Your task to perform on an android device: Open Google Image 0: 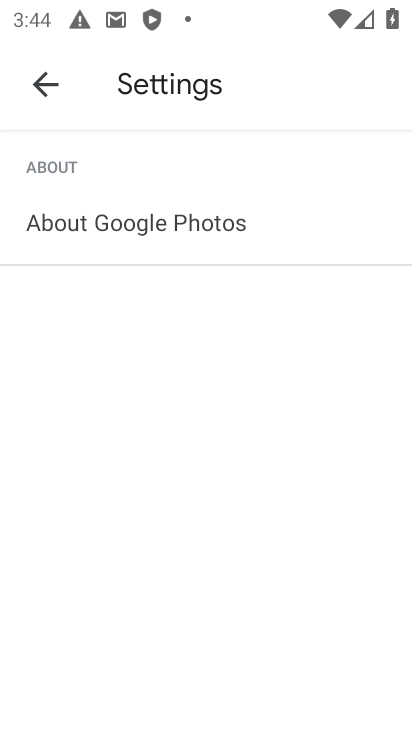
Step 0: press home button
Your task to perform on an android device: Open Google Image 1: 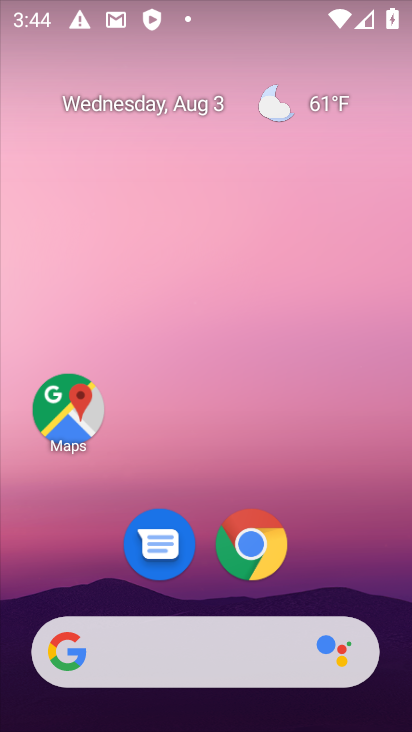
Step 1: drag from (332, 571) to (325, 55)
Your task to perform on an android device: Open Google Image 2: 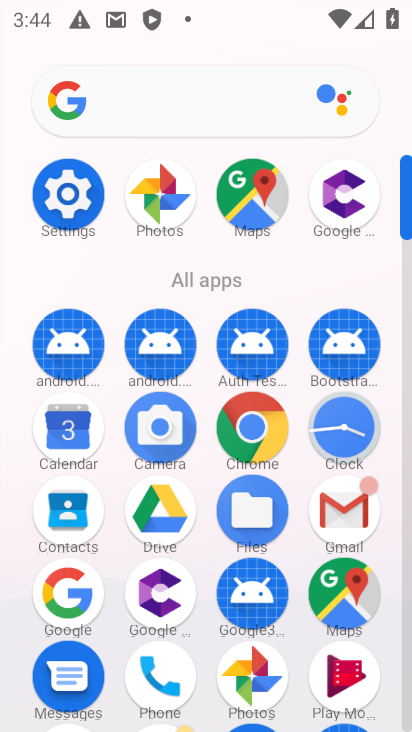
Step 2: click (49, 575)
Your task to perform on an android device: Open Google Image 3: 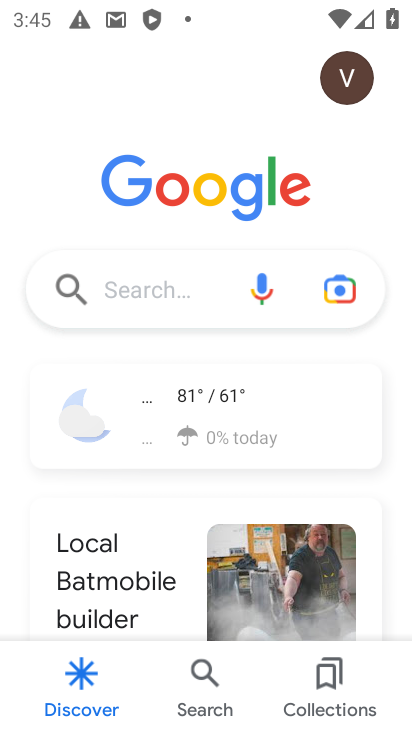
Step 3: task complete